Your task to perform on an android device: Turn on the flashlight Image 0: 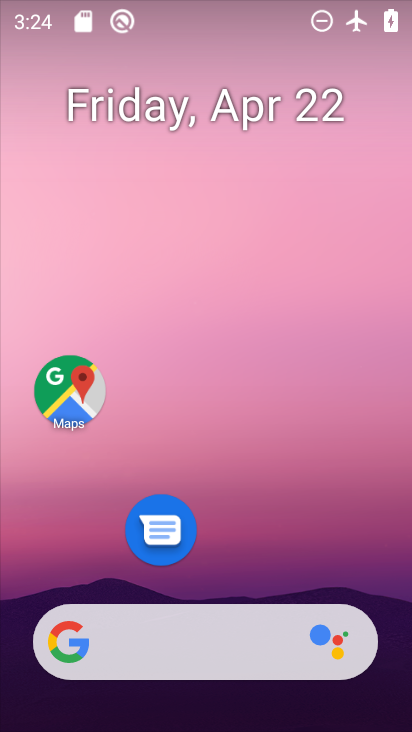
Step 0: drag from (236, 498) to (207, 171)
Your task to perform on an android device: Turn on the flashlight Image 1: 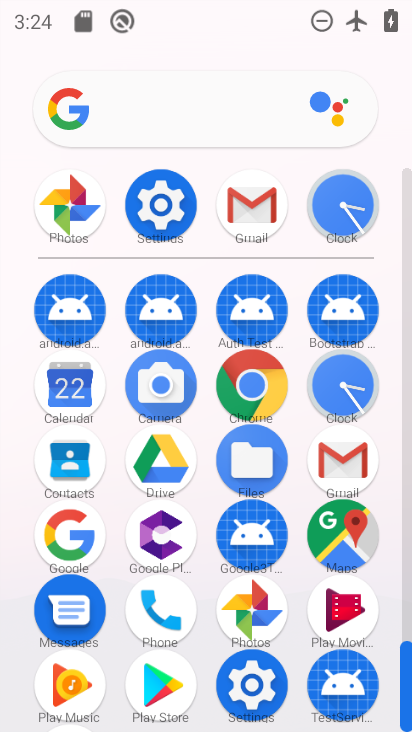
Step 1: click (156, 201)
Your task to perform on an android device: Turn on the flashlight Image 2: 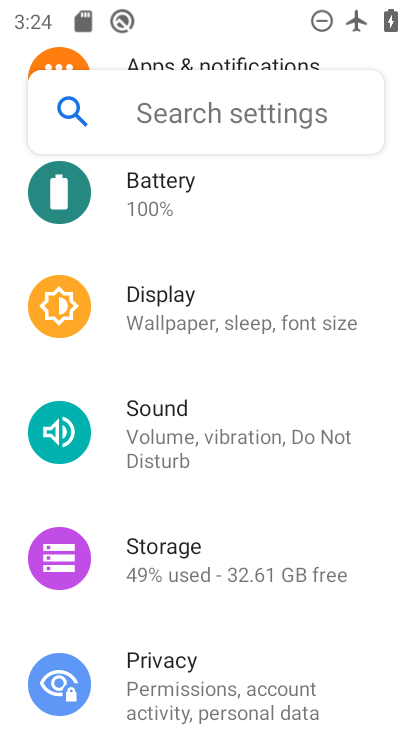
Step 2: drag from (254, 260) to (206, 700)
Your task to perform on an android device: Turn on the flashlight Image 3: 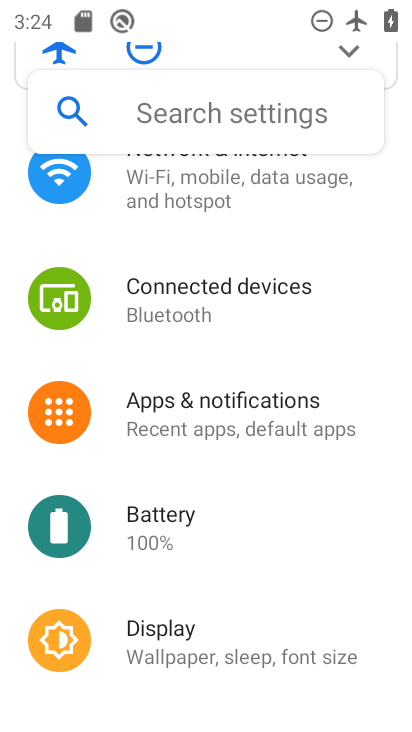
Step 3: drag from (226, 300) to (219, 527)
Your task to perform on an android device: Turn on the flashlight Image 4: 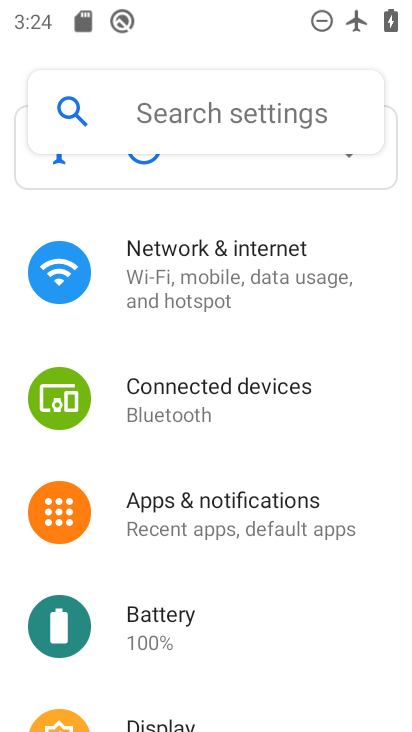
Step 4: click (151, 397)
Your task to perform on an android device: Turn on the flashlight Image 5: 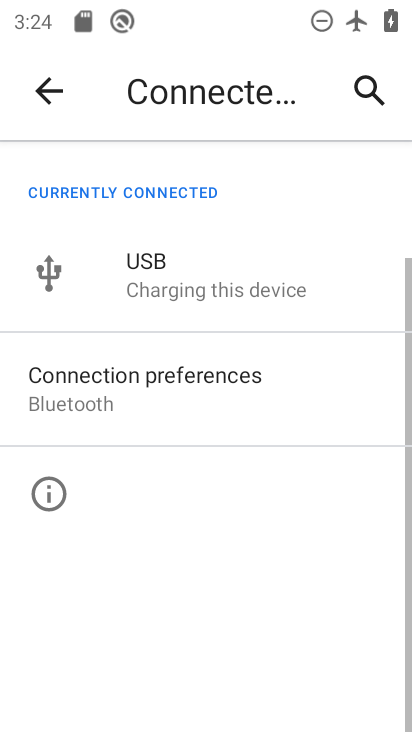
Step 5: drag from (187, 507) to (125, 280)
Your task to perform on an android device: Turn on the flashlight Image 6: 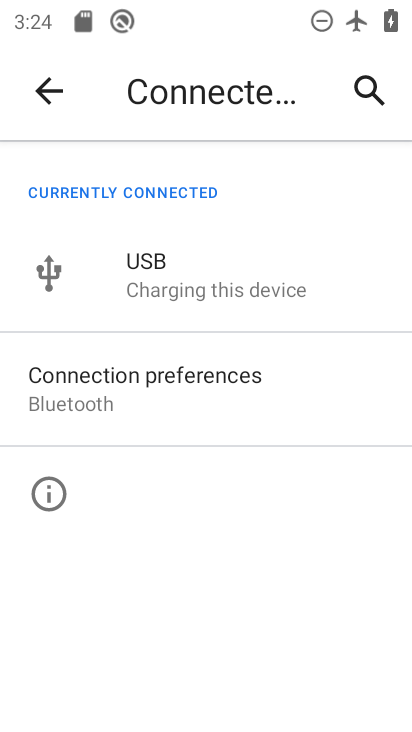
Step 6: click (42, 94)
Your task to perform on an android device: Turn on the flashlight Image 7: 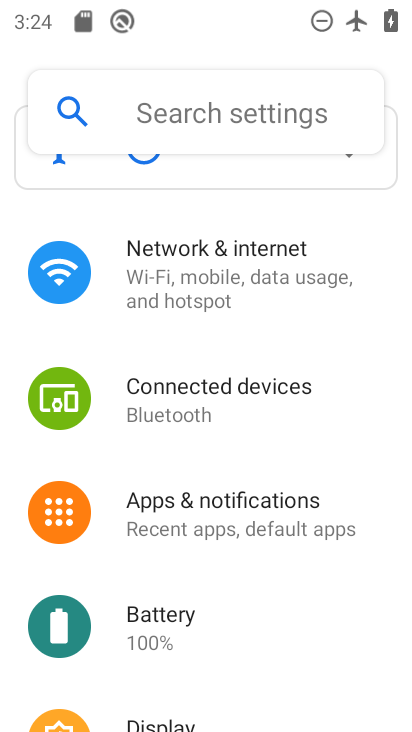
Step 7: task complete